Your task to perform on an android device: open app "LinkedIn" Image 0: 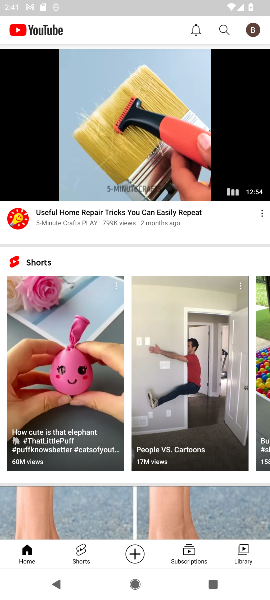
Step 0: press back button
Your task to perform on an android device: open app "LinkedIn" Image 1: 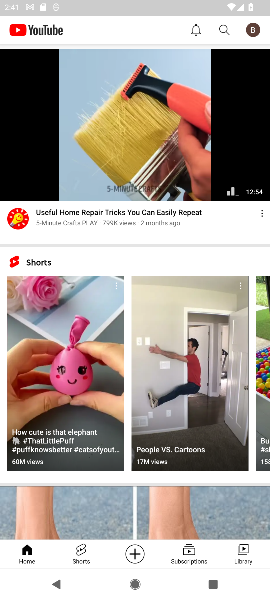
Step 1: press back button
Your task to perform on an android device: open app "LinkedIn" Image 2: 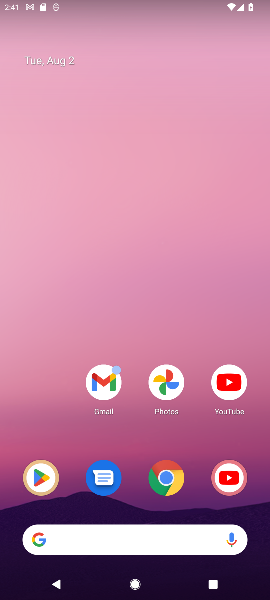
Step 2: press back button
Your task to perform on an android device: open app "LinkedIn" Image 3: 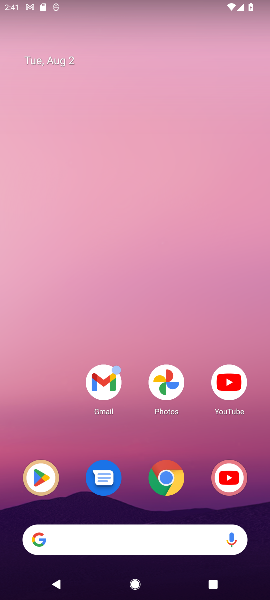
Step 3: drag from (157, 517) to (98, 83)
Your task to perform on an android device: open app "LinkedIn" Image 4: 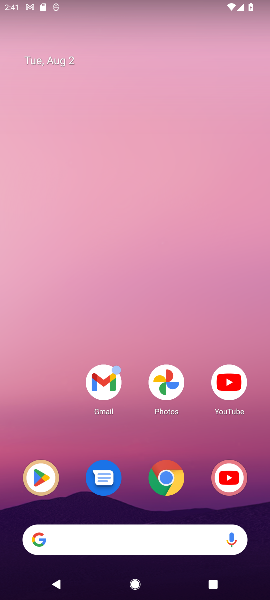
Step 4: drag from (106, 420) to (94, 138)
Your task to perform on an android device: open app "LinkedIn" Image 5: 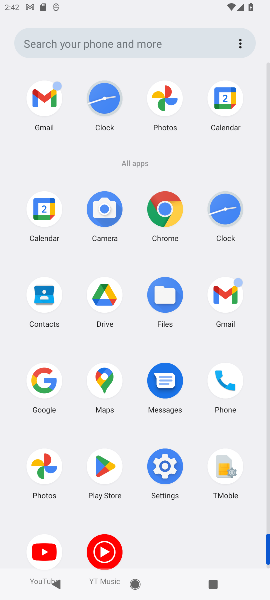
Step 5: click (116, 474)
Your task to perform on an android device: open app "LinkedIn" Image 6: 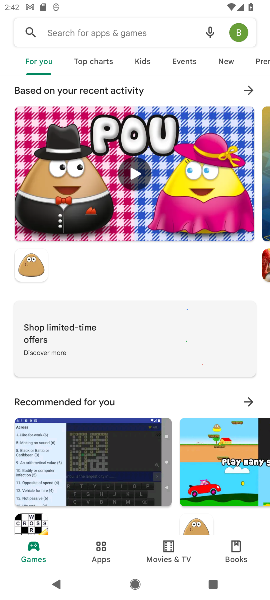
Step 6: click (62, 29)
Your task to perform on an android device: open app "LinkedIn" Image 7: 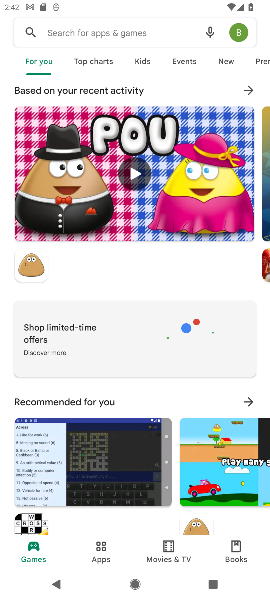
Step 7: click (62, 29)
Your task to perform on an android device: open app "LinkedIn" Image 8: 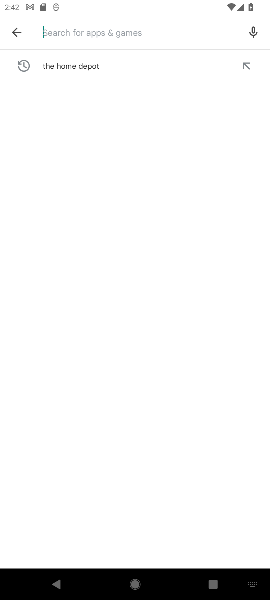
Step 8: click (62, 31)
Your task to perform on an android device: open app "LinkedIn" Image 9: 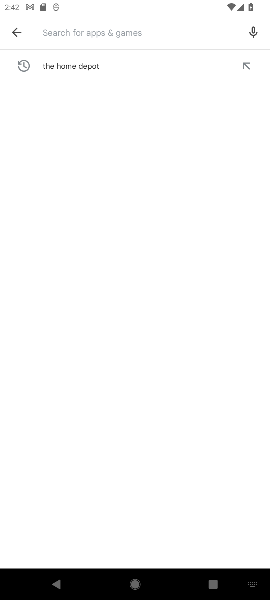
Step 9: click (63, 32)
Your task to perform on an android device: open app "LinkedIn" Image 10: 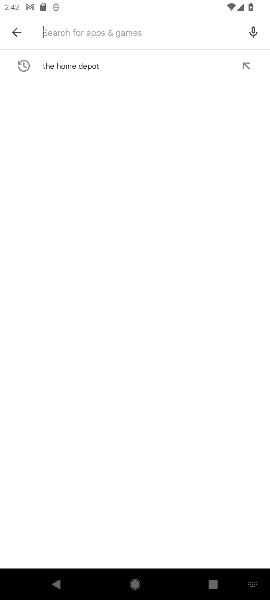
Step 10: type "linkdin"
Your task to perform on an android device: open app "LinkedIn" Image 11: 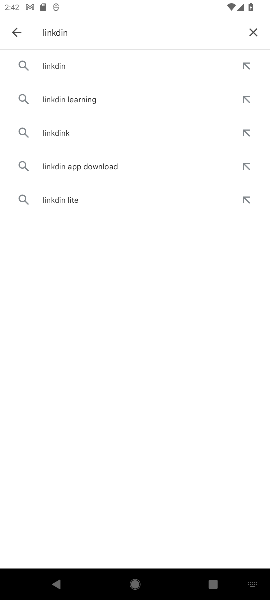
Step 11: click (34, 68)
Your task to perform on an android device: open app "LinkedIn" Image 12: 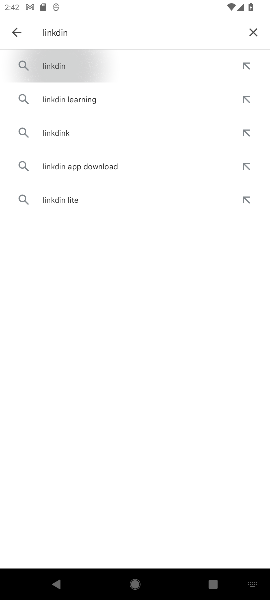
Step 12: click (42, 66)
Your task to perform on an android device: open app "LinkedIn" Image 13: 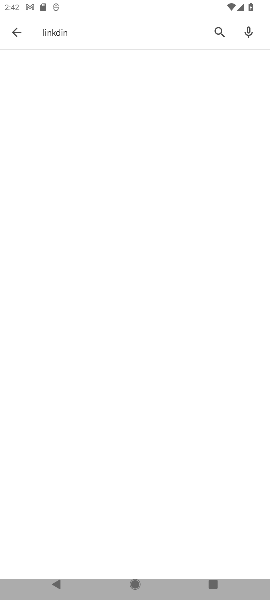
Step 13: click (46, 64)
Your task to perform on an android device: open app "LinkedIn" Image 14: 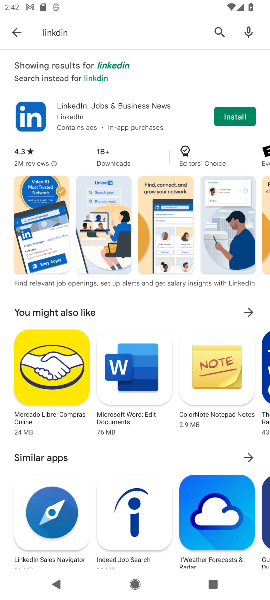
Step 14: click (237, 115)
Your task to perform on an android device: open app "LinkedIn" Image 15: 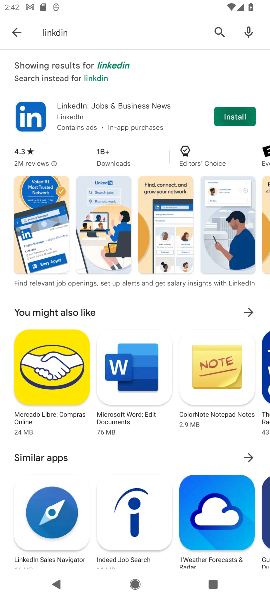
Step 15: click (238, 115)
Your task to perform on an android device: open app "LinkedIn" Image 16: 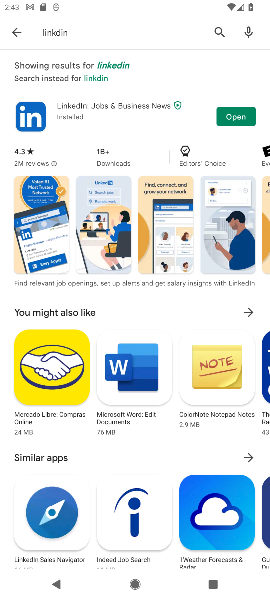
Step 16: click (243, 114)
Your task to perform on an android device: open app "LinkedIn" Image 17: 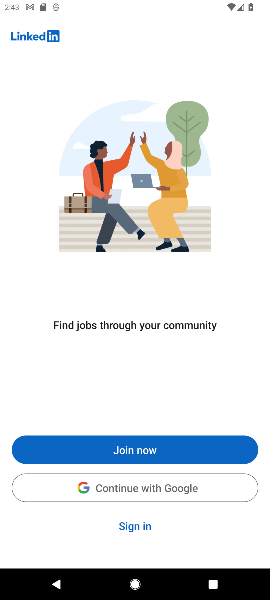
Step 17: click (136, 453)
Your task to perform on an android device: open app "LinkedIn" Image 18: 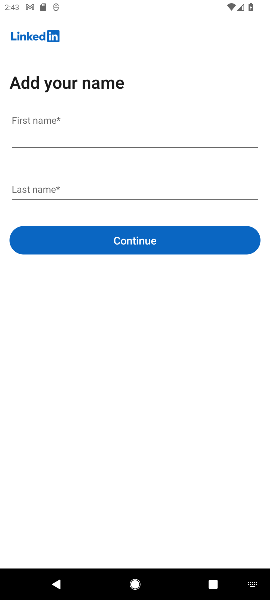
Step 18: task complete